Your task to perform on an android device: toggle location history Image 0: 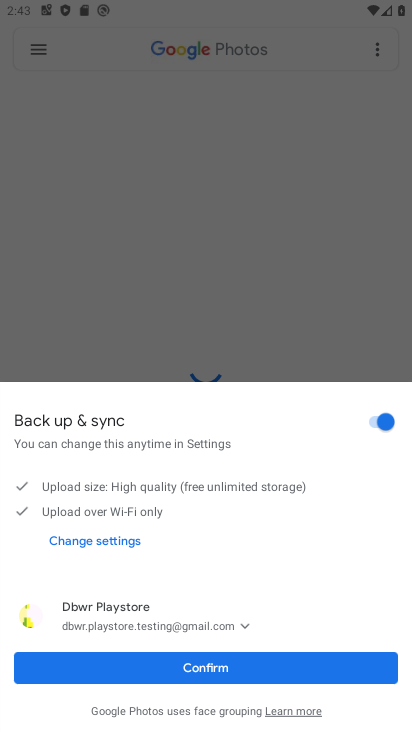
Step 0: press home button
Your task to perform on an android device: toggle location history Image 1: 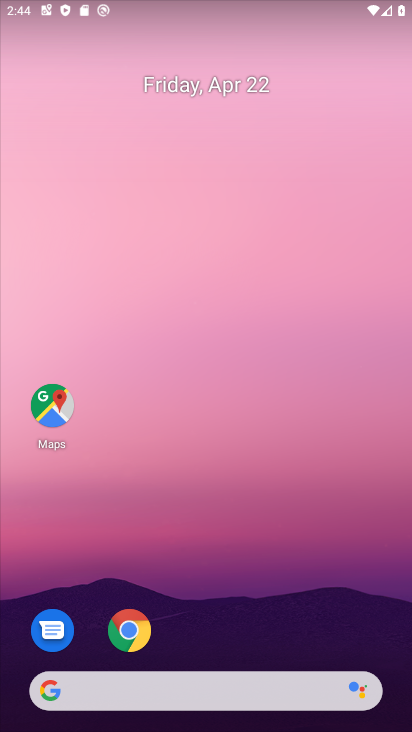
Step 1: drag from (270, 663) to (189, 92)
Your task to perform on an android device: toggle location history Image 2: 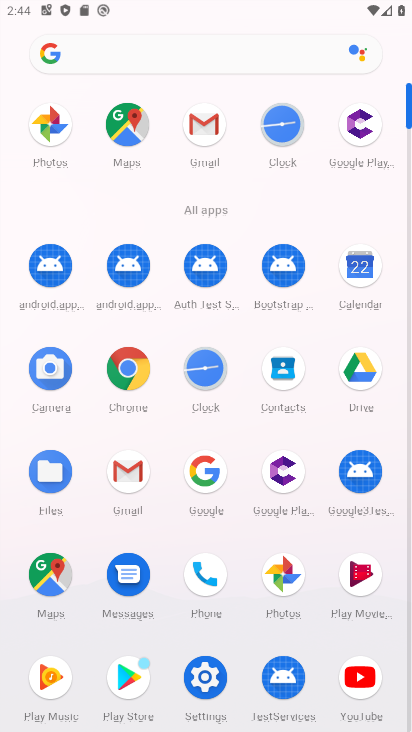
Step 2: drag from (256, 558) to (263, 176)
Your task to perform on an android device: toggle location history Image 3: 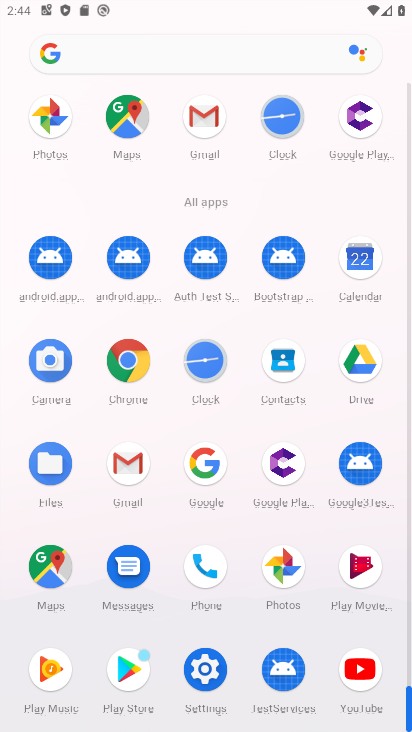
Step 3: drag from (292, 0) to (296, 385)
Your task to perform on an android device: toggle location history Image 4: 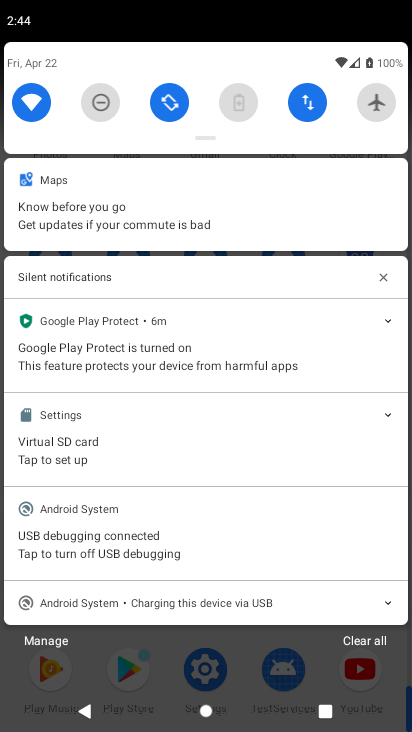
Step 4: drag from (297, 482) to (311, 101)
Your task to perform on an android device: toggle location history Image 5: 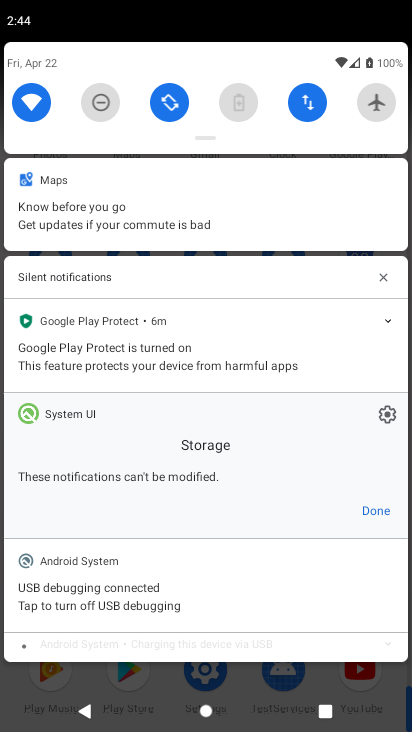
Step 5: drag from (305, 676) to (297, 159)
Your task to perform on an android device: toggle location history Image 6: 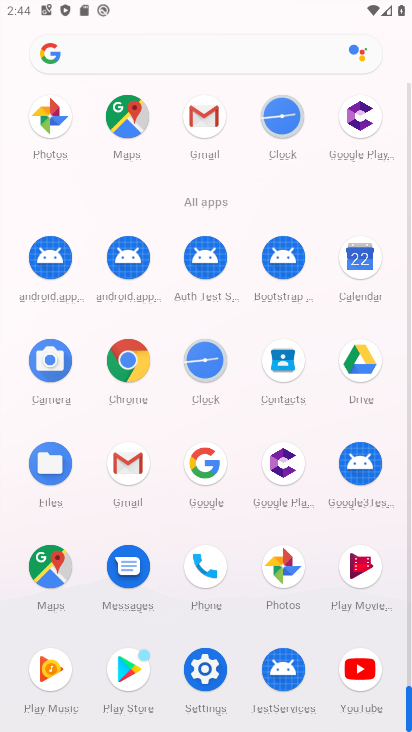
Step 6: drag from (290, 588) to (302, 101)
Your task to perform on an android device: toggle location history Image 7: 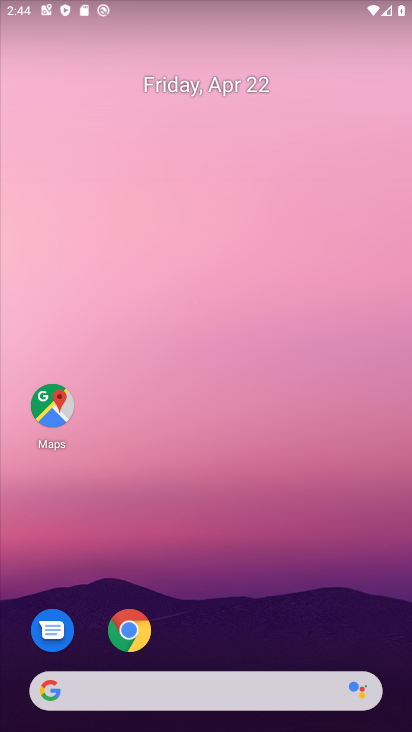
Step 7: drag from (262, 704) to (209, 211)
Your task to perform on an android device: toggle location history Image 8: 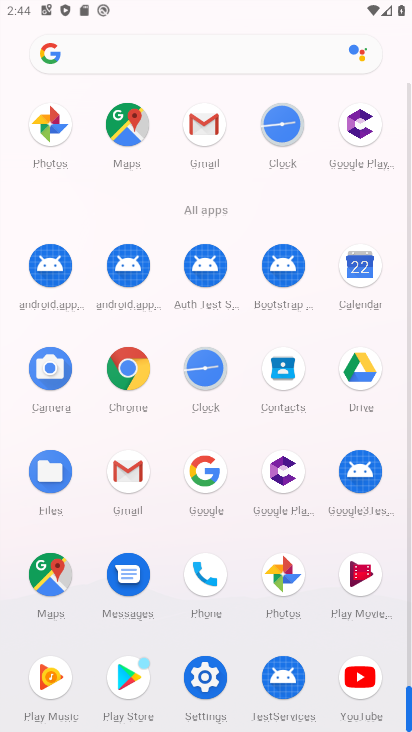
Step 8: click (213, 680)
Your task to perform on an android device: toggle location history Image 9: 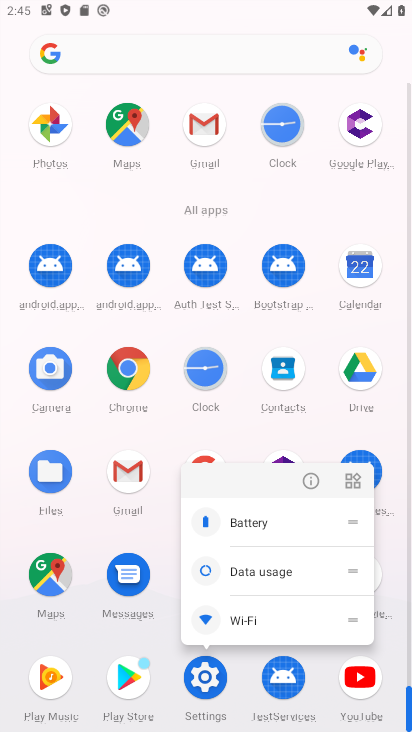
Step 9: click (210, 674)
Your task to perform on an android device: toggle location history Image 10: 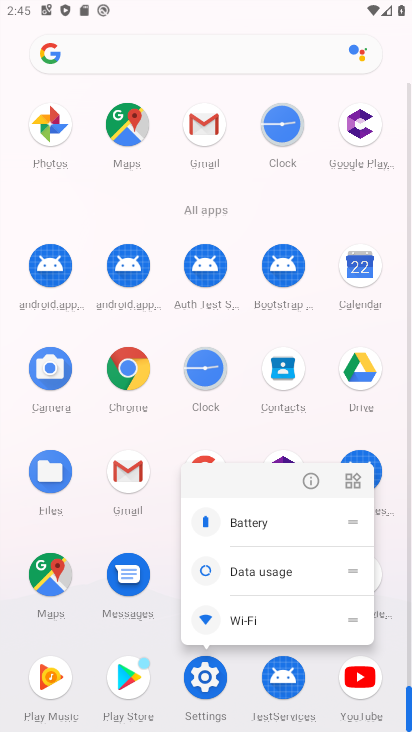
Step 10: click (216, 671)
Your task to perform on an android device: toggle location history Image 11: 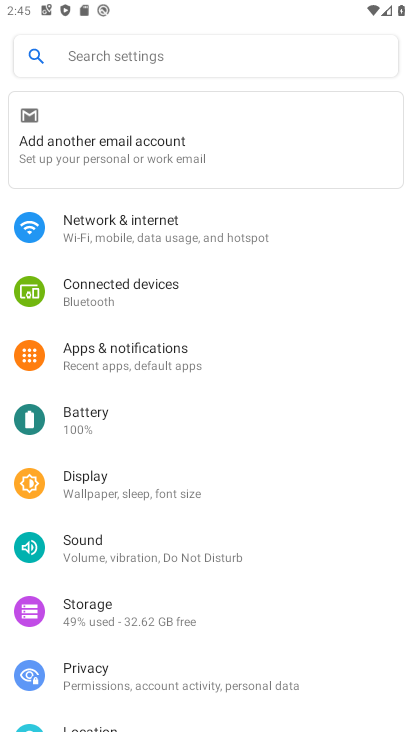
Step 11: drag from (221, 665) to (137, 218)
Your task to perform on an android device: toggle location history Image 12: 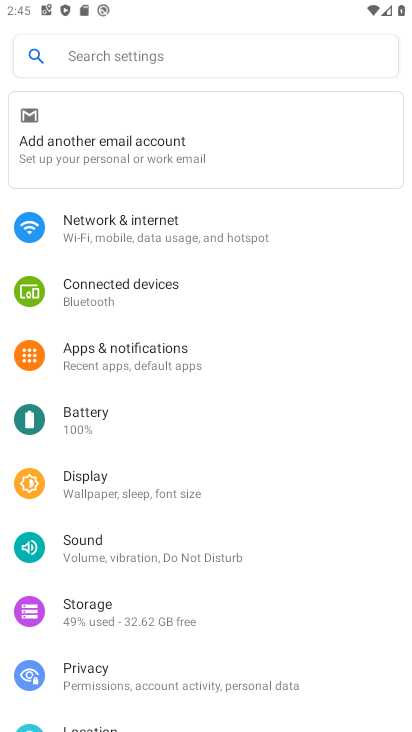
Step 12: drag from (252, 667) to (269, 262)
Your task to perform on an android device: toggle location history Image 13: 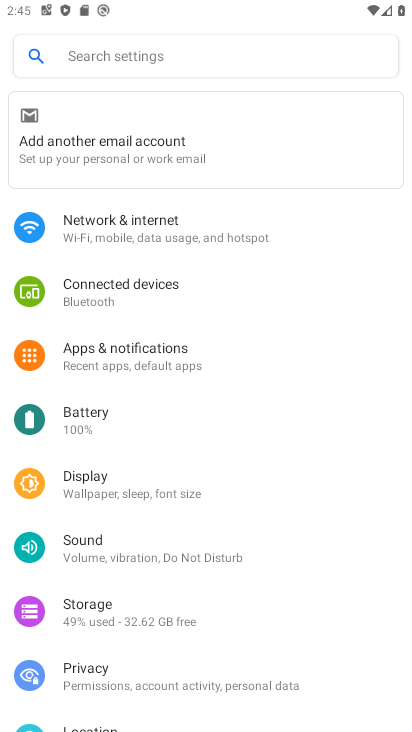
Step 13: click (244, 724)
Your task to perform on an android device: toggle location history Image 14: 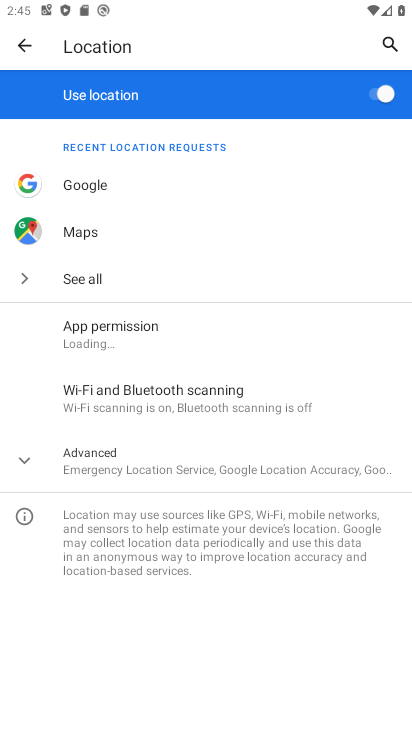
Step 14: click (395, 97)
Your task to perform on an android device: toggle location history Image 15: 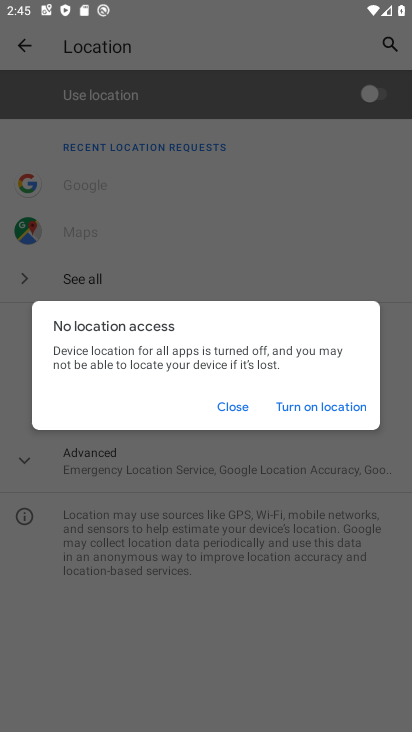
Step 15: task complete